Your task to perform on an android device: toggle translation in the chrome app Image 0: 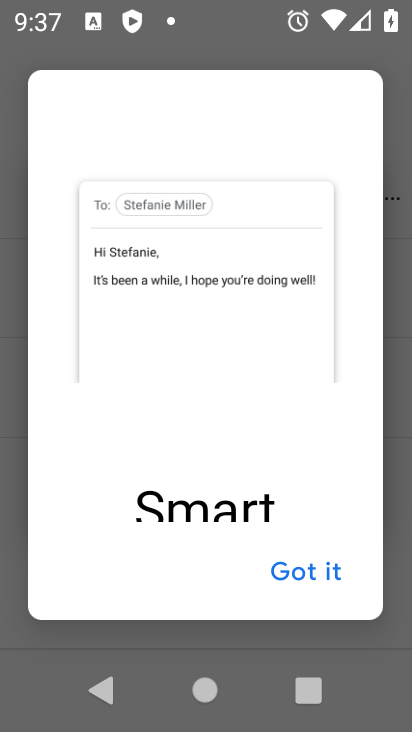
Step 0: press home button
Your task to perform on an android device: toggle translation in the chrome app Image 1: 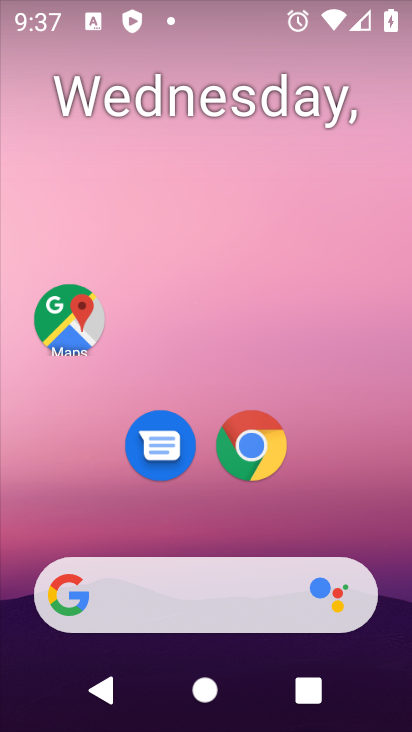
Step 1: drag from (373, 522) to (403, 144)
Your task to perform on an android device: toggle translation in the chrome app Image 2: 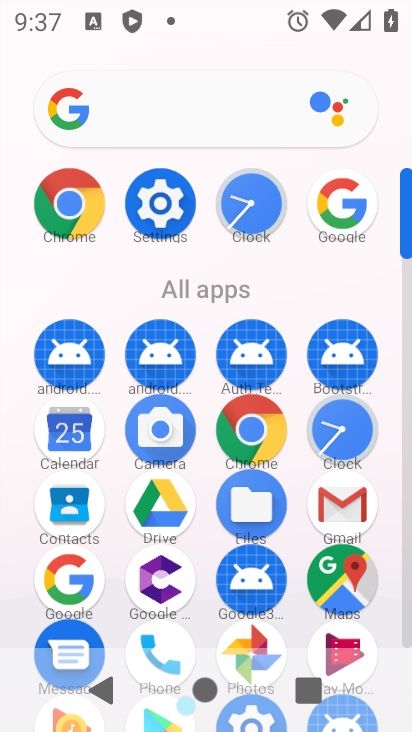
Step 2: click (94, 213)
Your task to perform on an android device: toggle translation in the chrome app Image 3: 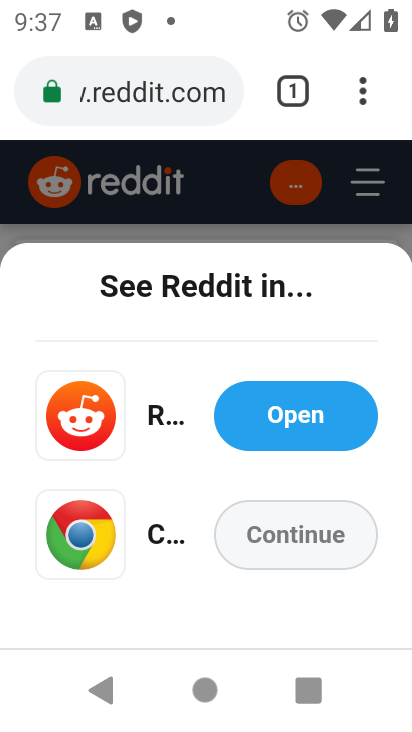
Step 3: drag from (359, 87) to (231, 466)
Your task to perform on an android device: toggle translation in the chrome app Image 4: 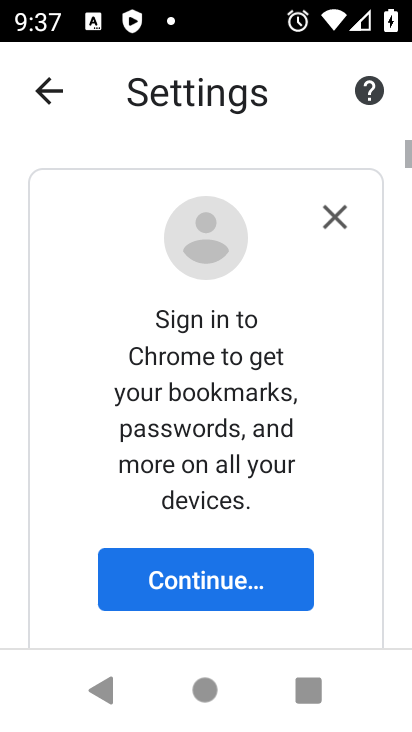
Step 4: drag from (281, 550) to (317, 90)
Your task to perform on an android device: toggle translation in the chrome app Image 5: 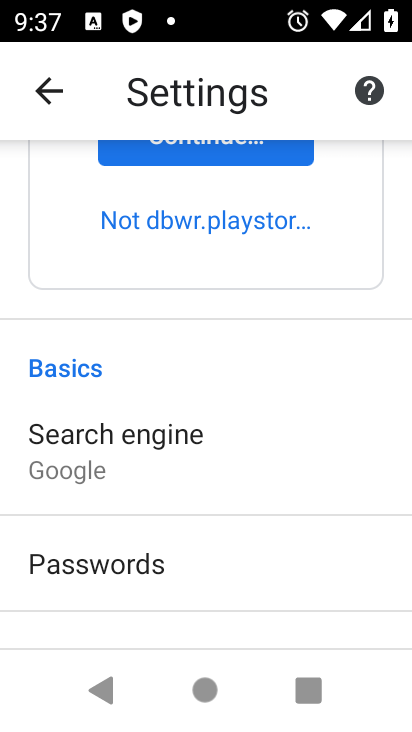
Step 5: drag from (306, 501) to (348, 74)
Your task to perform on an android device: toggle translation in the chrome app Image 6: 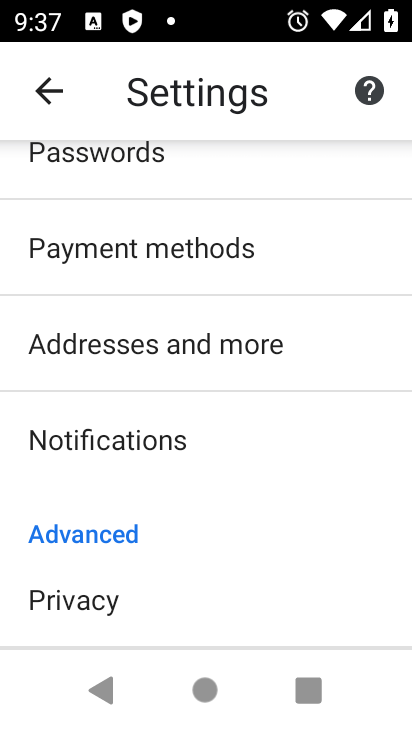
Step 6: drag from (249, 523) to (290, 126)
Your task to perform on an android device: toggle translation in the chrome app Image 7: 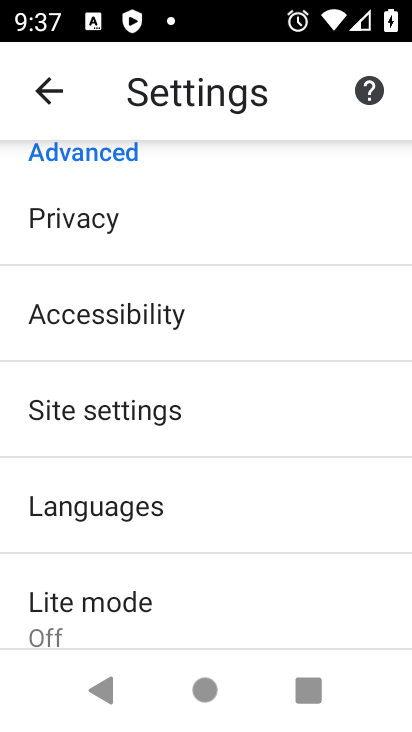
Step 7: click (209, 510)
Your task to perform on an android device: toggle translation in the chrome app Image 8: 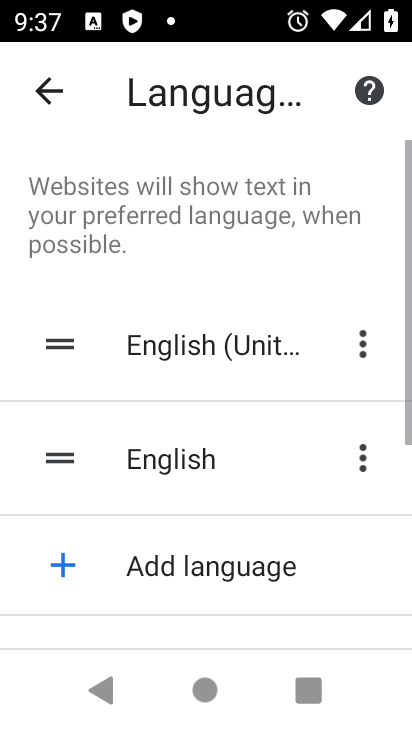
Step 8: drag from (252, 560) to (263, 183)
Your task to perform on an android device: toggle translation in the chrome app Image 9: 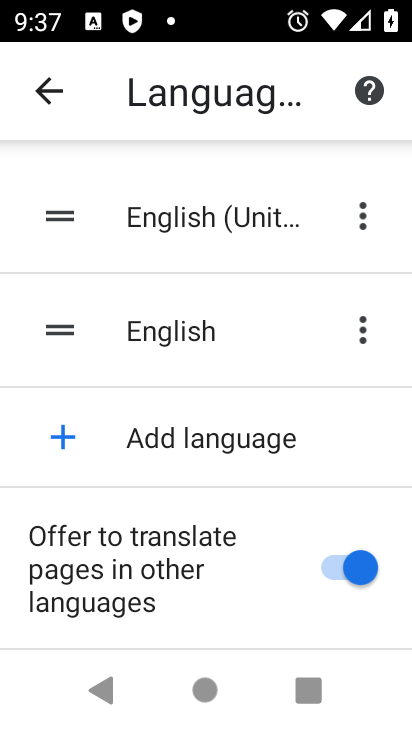
Step 9: click (350, 567)
Your task to perform on an android device: toggle translation in the chrome app Image 10: 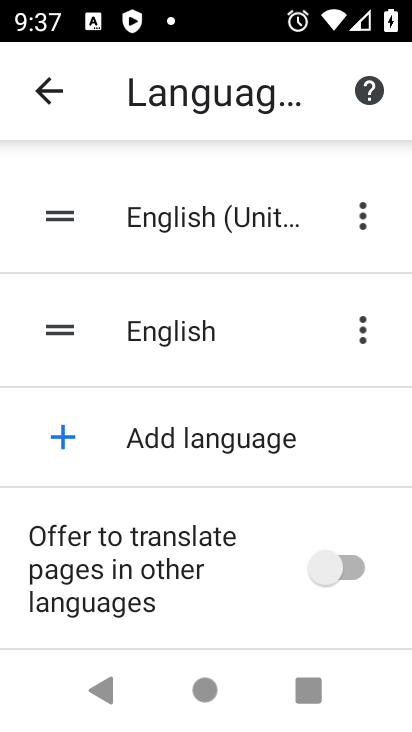
Step 10: task complete